Your task to perform on an android device: Open Google Maps and go to "Timeline" Image 0: 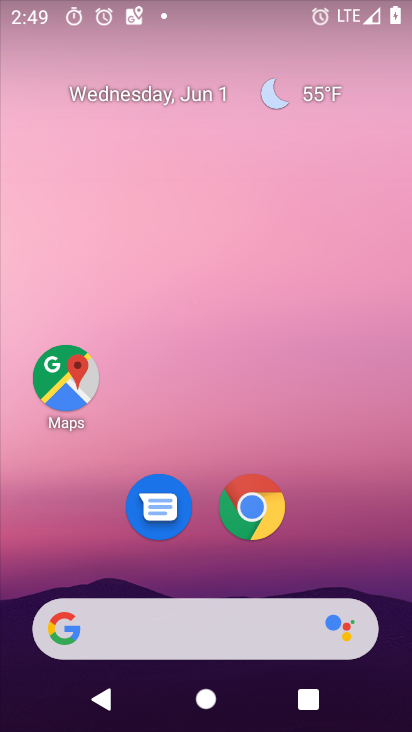
Step 0: click (57, 373)
Your task to perform on an android device: Open Google Maps and go to "Timeline" Image 1: 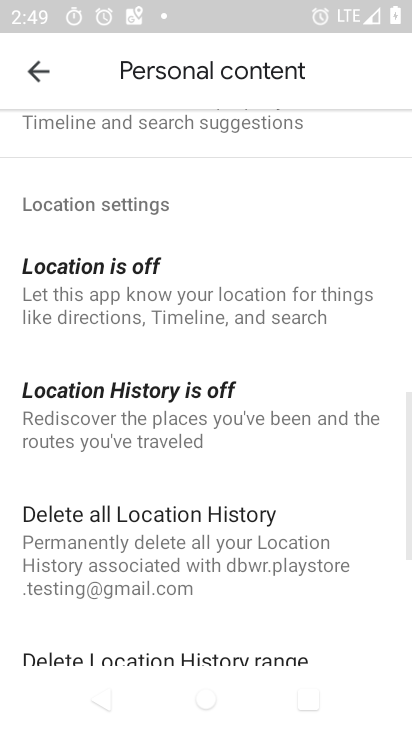
Step 1: click (47, 81)
Your task to perform on an android device: Open Google Maps and go to "Timeline" Image 2: 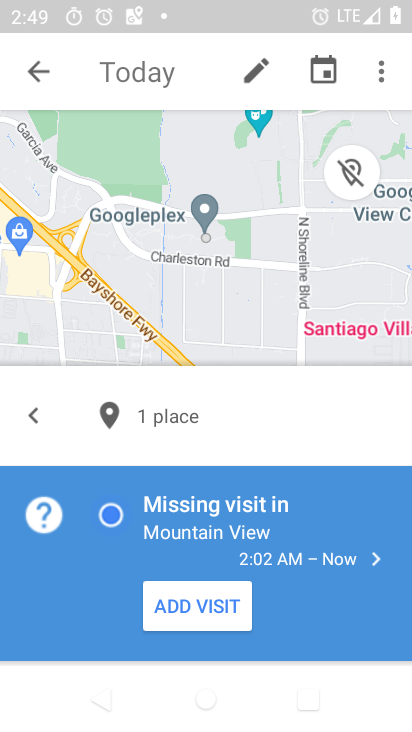
Step 2: task complete